Your task to perform on an android device: Open Android settings Image 0: 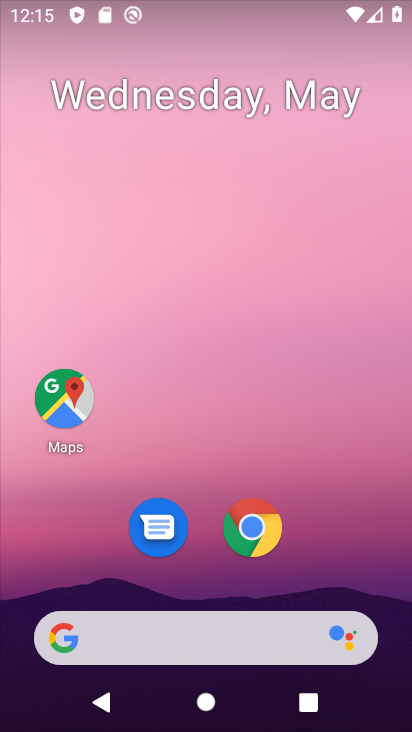
Step 0: drag from (321, 381) to (206, 8)
Your task to perform on an android device: Open Android settings Image 1: 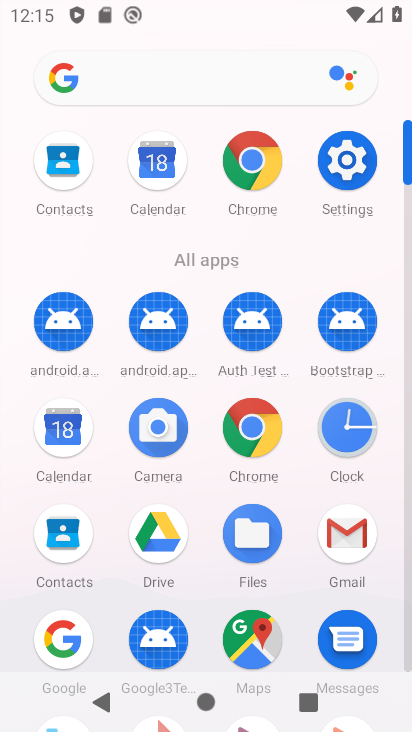
Step 1: click (345, 159)
Your task to perform on an android device: Open Android settings Image 2: 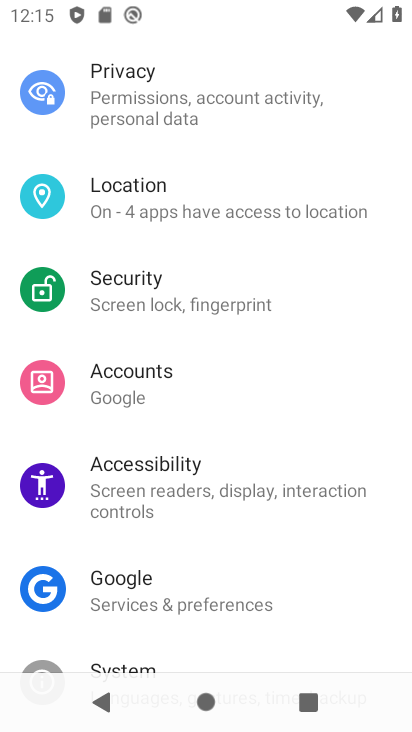
Step 2: drag from (211, 588) to (167, 58)
Your task to perform on an android device: Open Android settings Image 3: 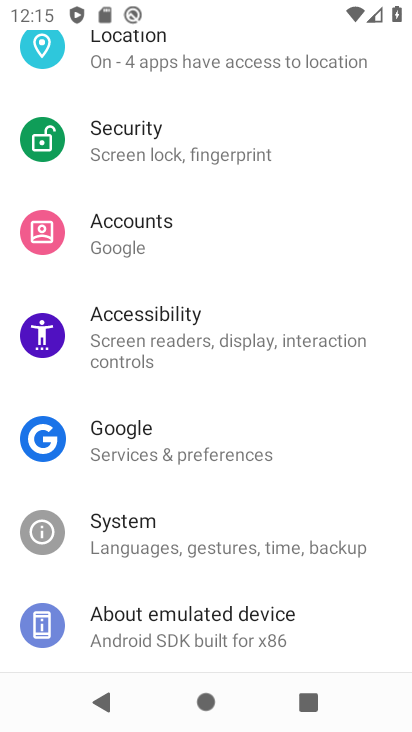
Step 3: drag from (183, 578) to (205, 188)
Your task to perform on an android device: Open Android settings Image 4: 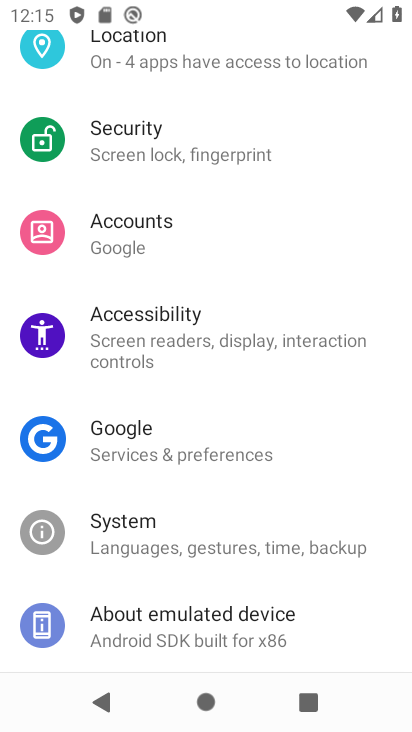
Step 4: click (193, 619)
Your task to perform on an android device: Open Android settings Image 5: 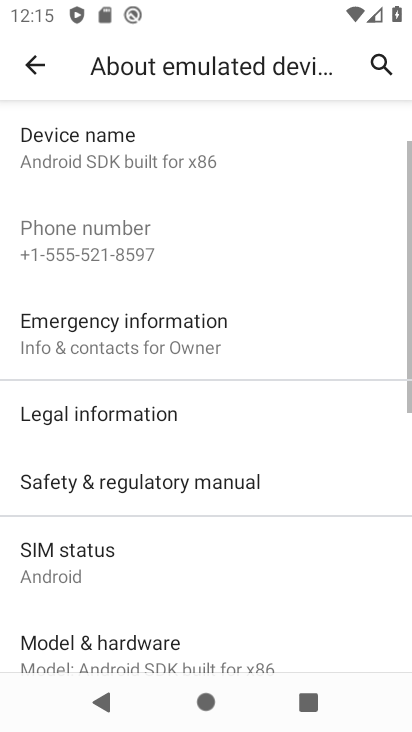
Step 5: drag from (158, 524) to (200, 141)
Your task to perform on an android device: Open Android settings Image 6: 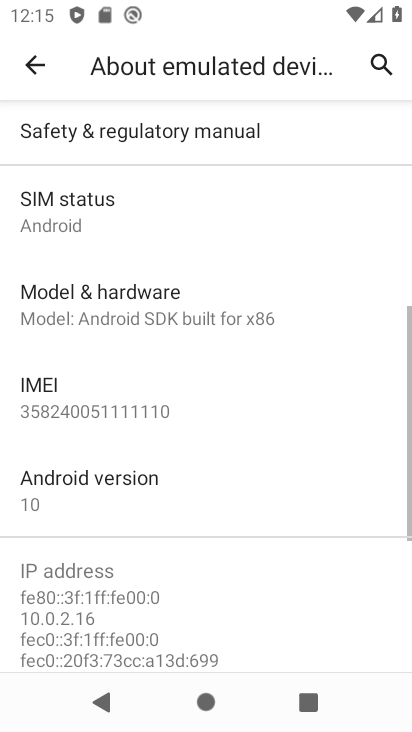
Step 6: click (104, 494)
Your task to perform on an android device: Open Android settings Image 7: 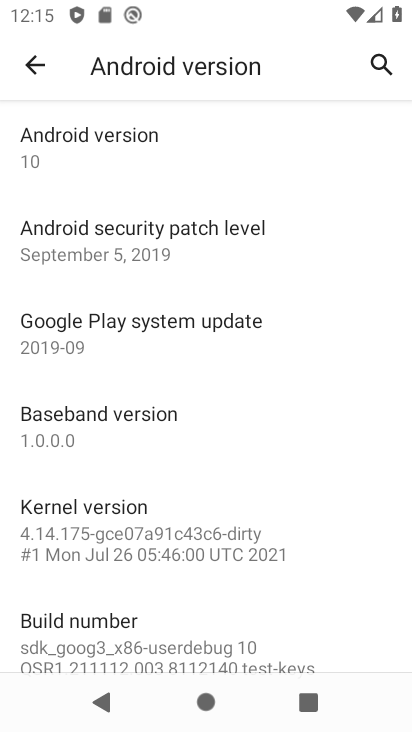
Step 7: task complete